Your task to perform on an android device: toggle notification dots Image 0: 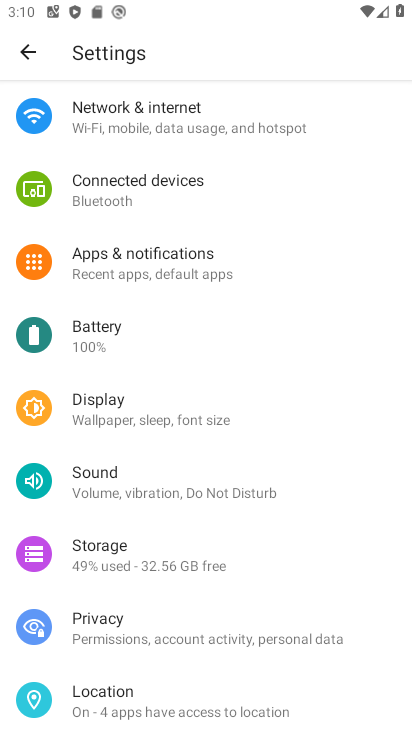
Step 0: press home button
Your task to perform on an android device: toggle notification dots Image 1: 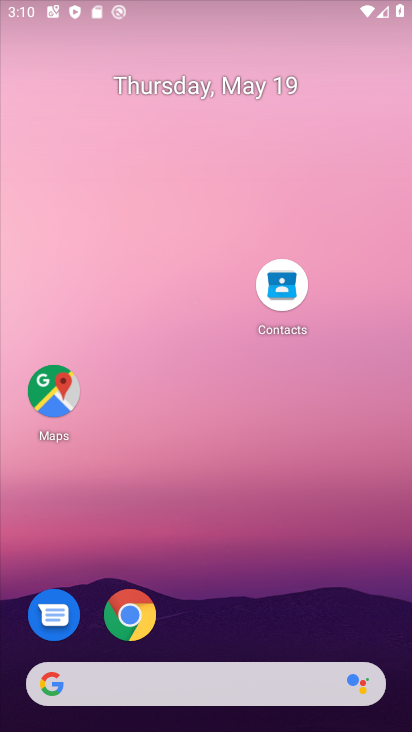
Step 1: drag from (228, 686) to (312, 131)
Your task to perform on an android device: toggle notification dots Image 2: 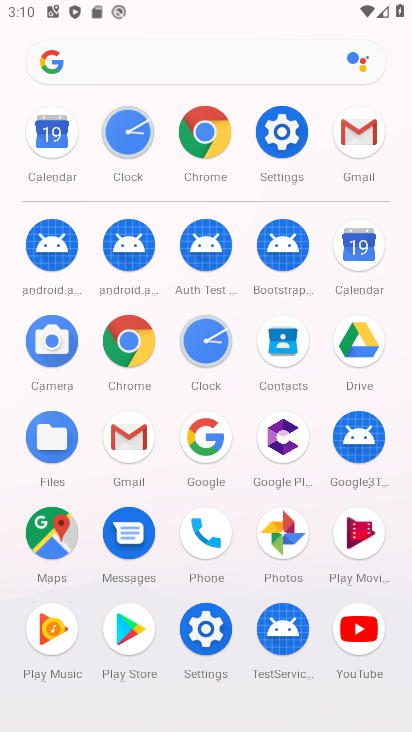
Step 2: click (278, 155)
Your task to perform on an android device: toggle notification dots Image 3: 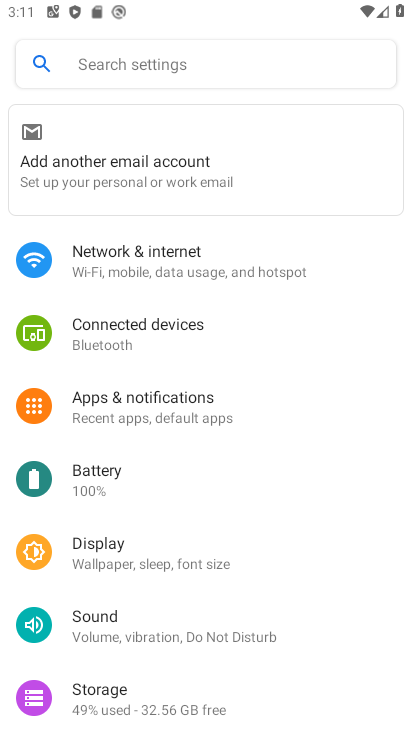
Step 3: drag from (183, 518) to (202, 370)
Your task to perform on an android device: toggle notification dots Image 4: 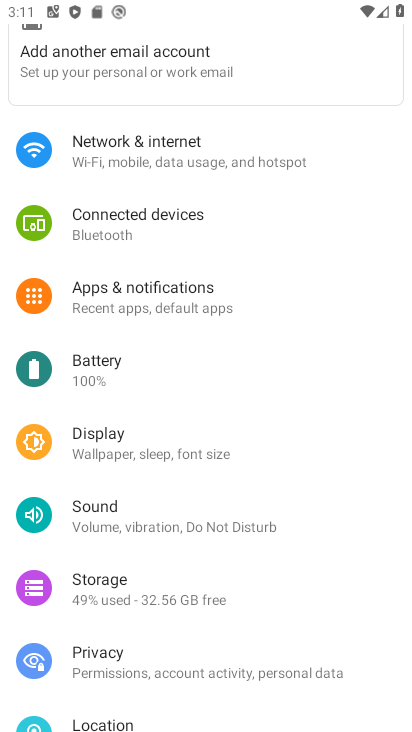
Step 4: click (267, 301)
Your task to perform on an android device: toggle notification dots Image 5: 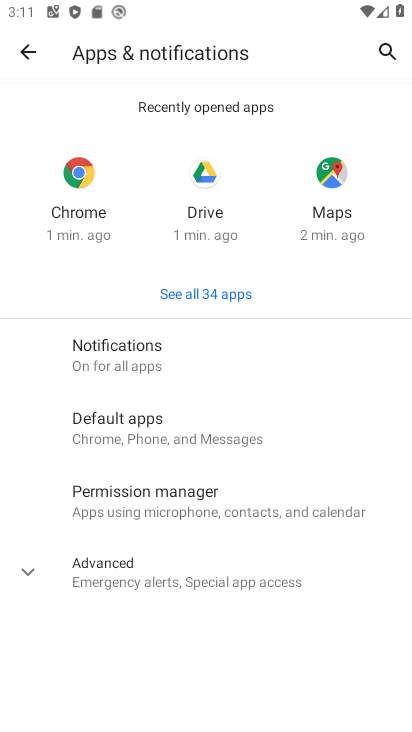
Step 5: click (219, 577)
Your task to perform on an android device: toggle notification dots Image 6: 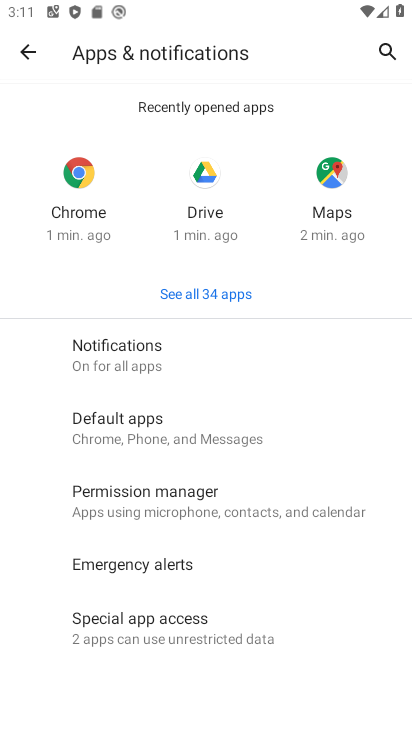
Step 6: click (156, 356)
Your task to perform on an android device: toggle notification dots Image 7: 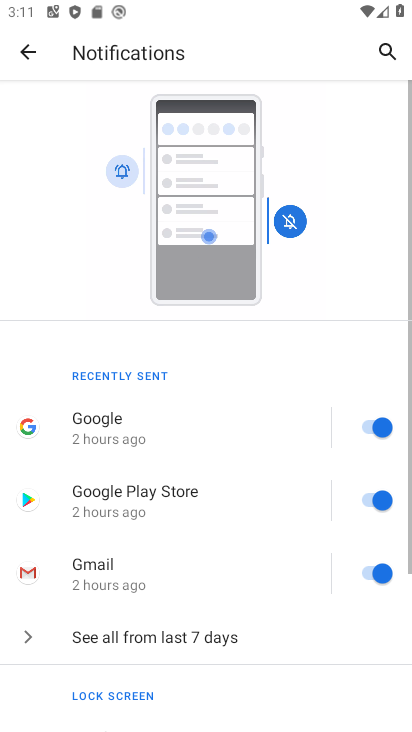
Step 7: drag from (212, 565) to (254, 101)
Your task to perform on an android device: toggle notification dots Image 8: 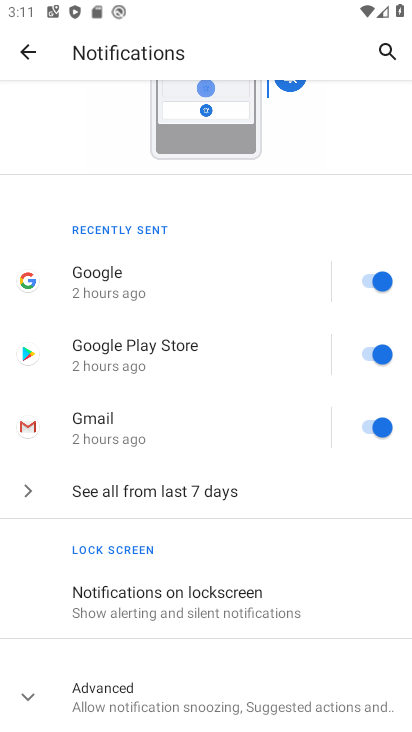
Step 8: click (220, 703)
Your task to perform on an android device: toggle notification dots Image 9: 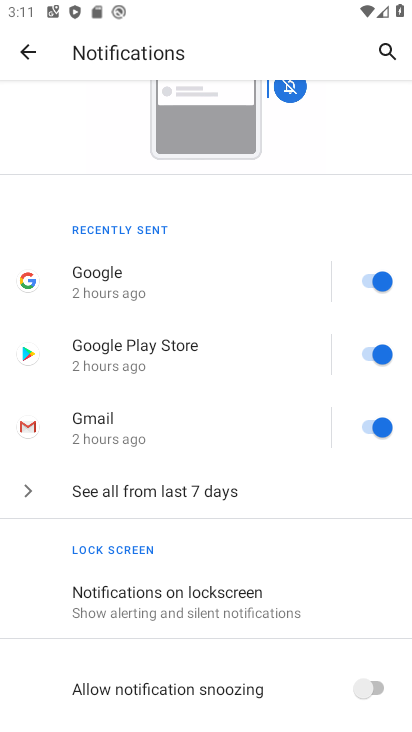
Step 9: drag from (210, 675) to (213, 318)
Your task to perform on an android device: toggle notification dots Image 10: 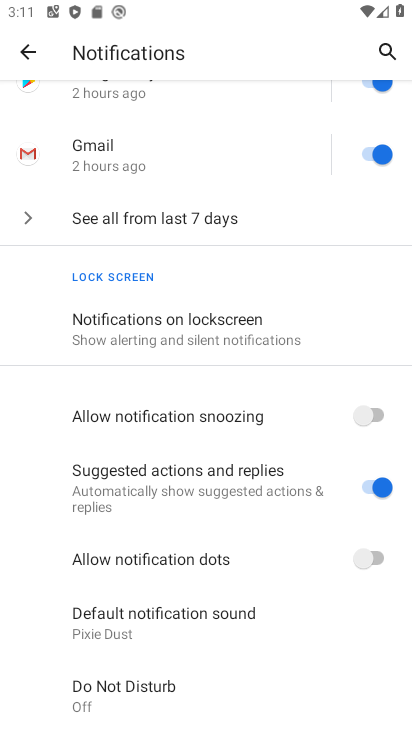
Step 10: click (330, 553)
Your task to perform on an android device: toggle notification dots Image 11: 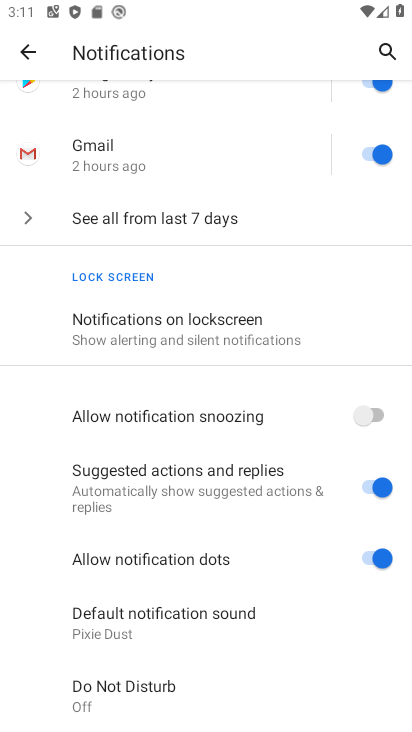
Step 11: task complete